Your task to perform on an android device: Go to accessibility settings Image 0: 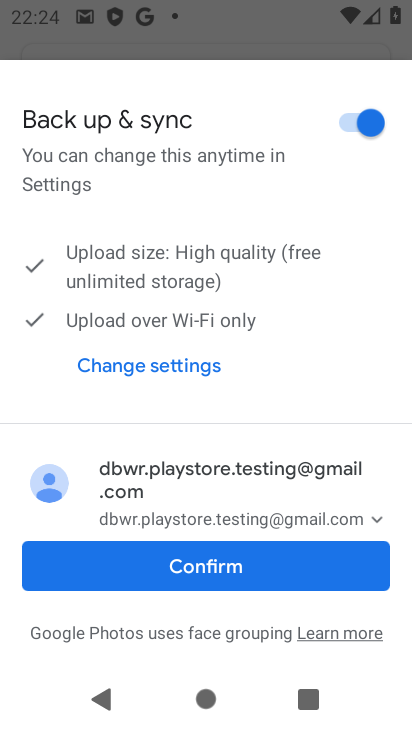
Step 0: press home button
Your task to perform on an android device: Go to accessibility settings Image 1: 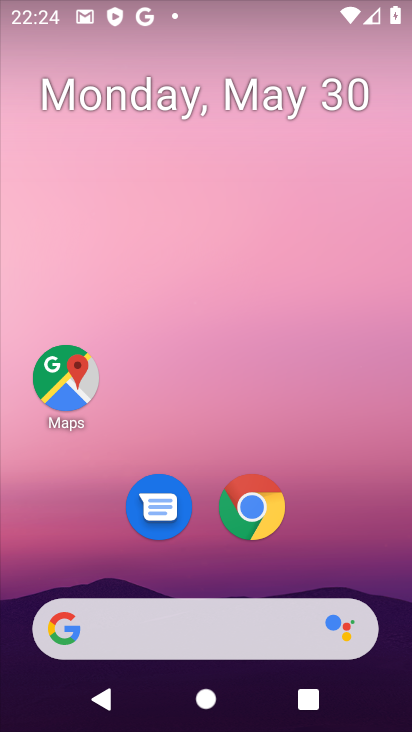
Step 1: drag from (366, 548) to (384, 125)
Your task to perform on an android device: Go to accessibility settings Image 2: 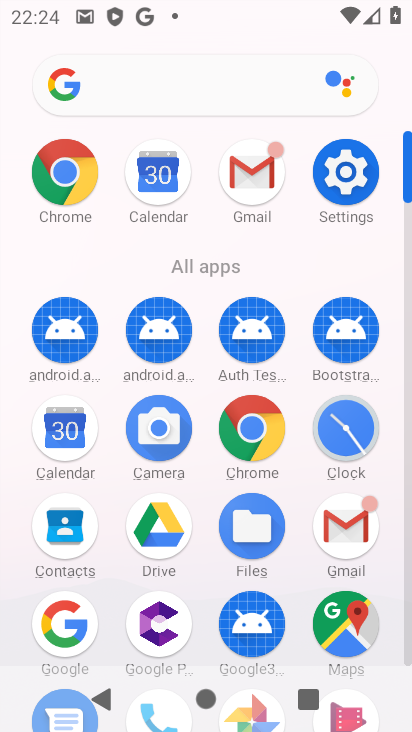
Step 2: click (343, 191)
Your task to perform on an android device: Go to accessibility settings Image 3: 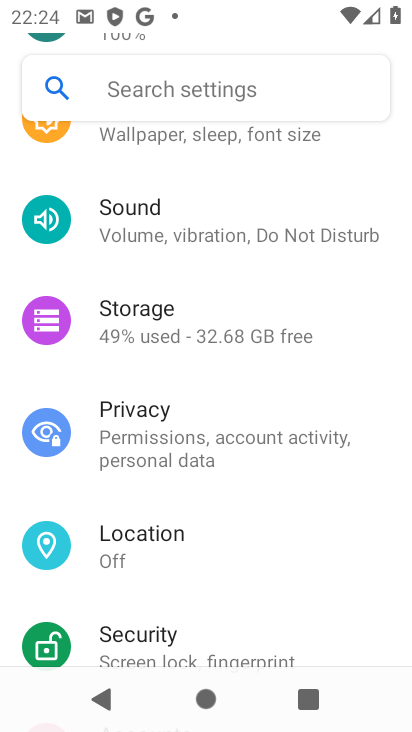
Step 3: drag from (360, 185) to (353, 308)
Your task to perform on an android device: Go to accessibility settings Image 4: 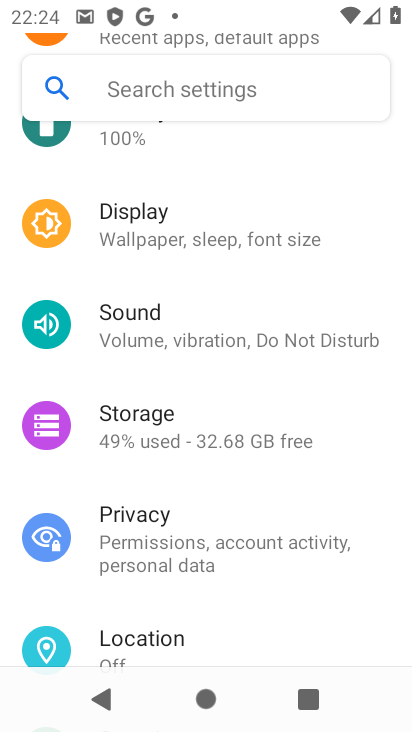
Step 4: drag from (352, 201) to (353, 320)
Your task to perform on an android device: Go to accessibility settings Image 5: 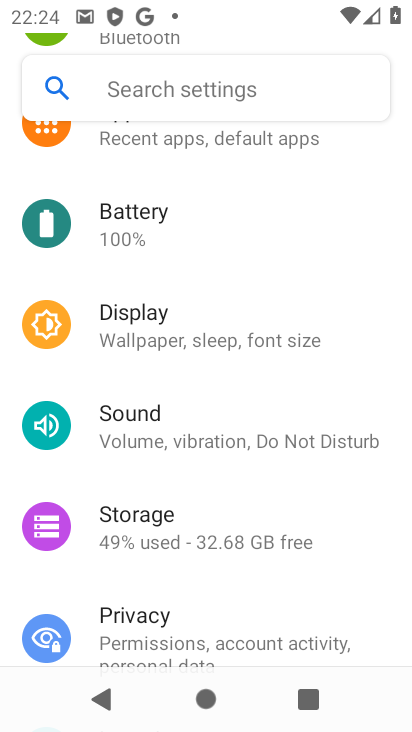
Step 5: drag from (359, 183) to (349, 369)
Your task to perform on an android device: Go to accessibility settings Image 6: 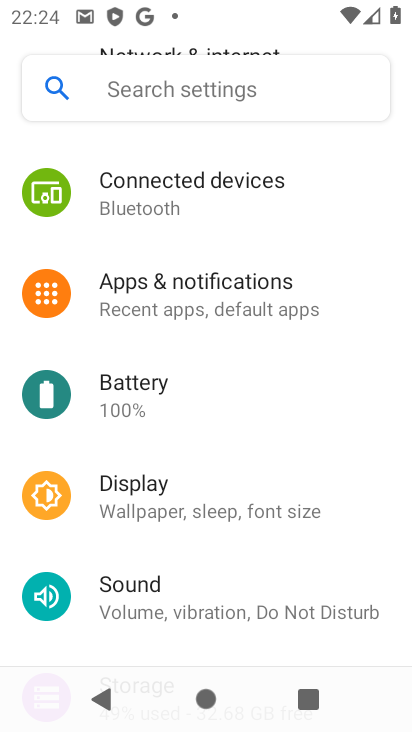
Step 6: drag from (357, 174) to (362, 364)
Your task to perform on an android device: Go to accessibility settings Image 7: 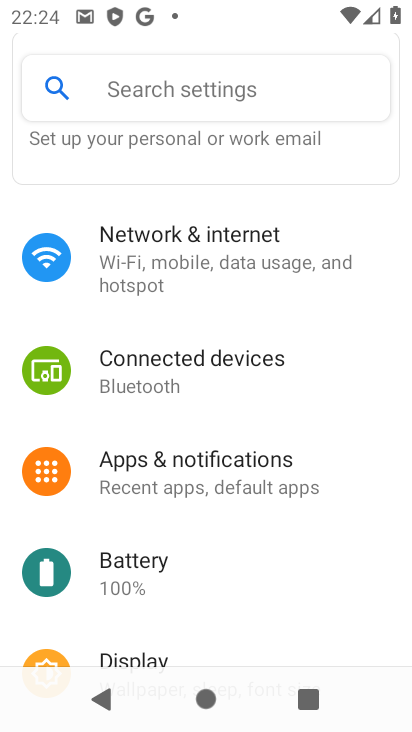
Step 7: drag from (361, 185) to (358, 400)
Your task to perform on an android device: Go to accessibility settings Image 8: 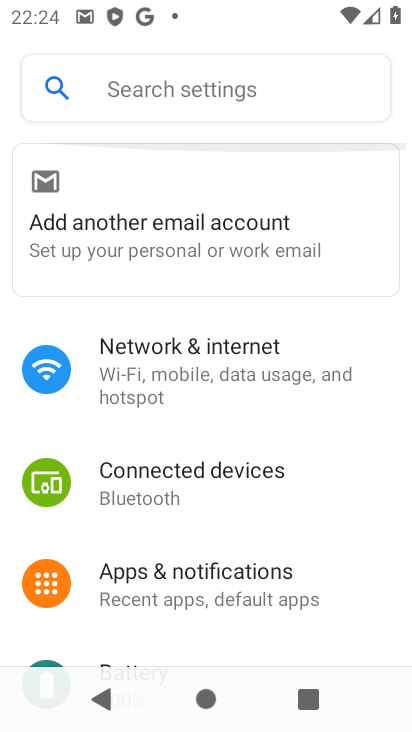
Step 8: drag from (359, 446) to (371, 302)
Your task to perform on an android device: Go to accessibility settings Image 9: 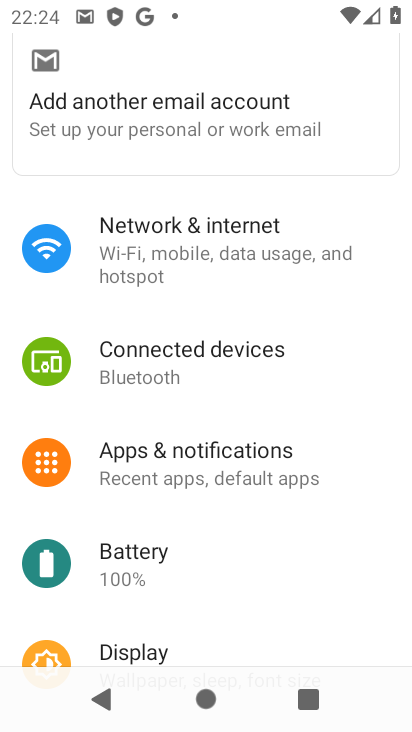
Step 9: drag from (360, 428) to (349, 295)
Your task to perform on an android device: Go to accessibility settings Image 10: 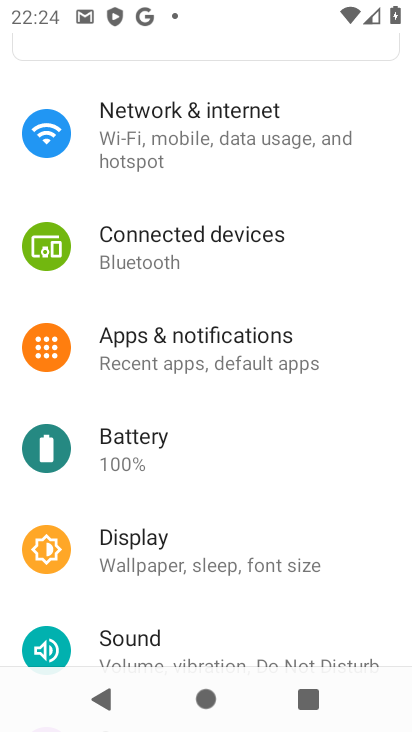
Step 10: drag from (351, 452) to (360, 318)
Your task to perform on an android device: Go to accessibility settings Image 11: 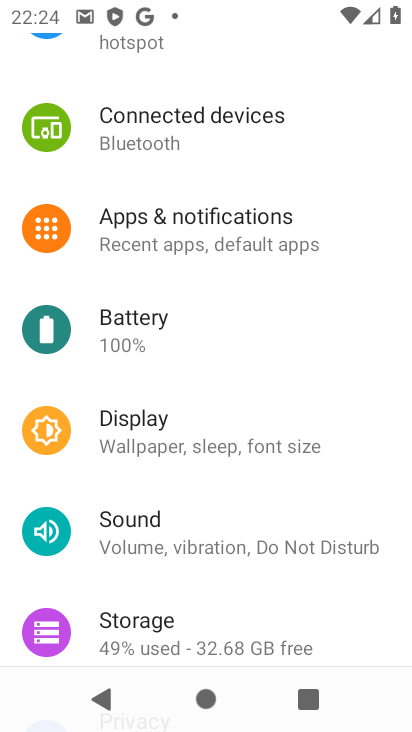
Step 11: drag from (365, 478) to (366, 324)
Your task to perform on an android device: Go to accessibility settings Image 12: 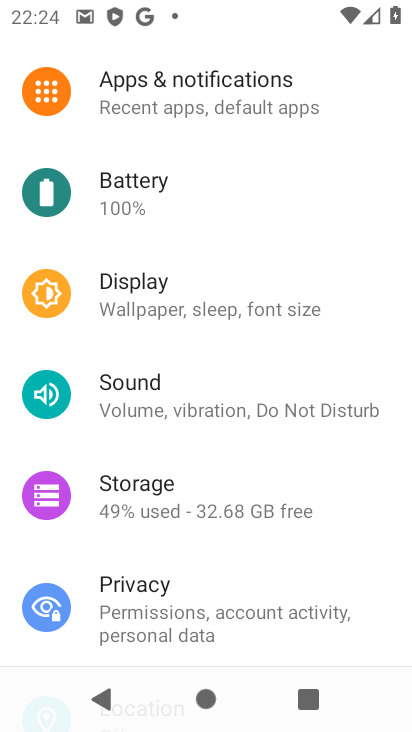
Step 12: drag from (358, 485) to (355, 326)
Your task to perform on an android device: Go to accessibility settings Image 13: 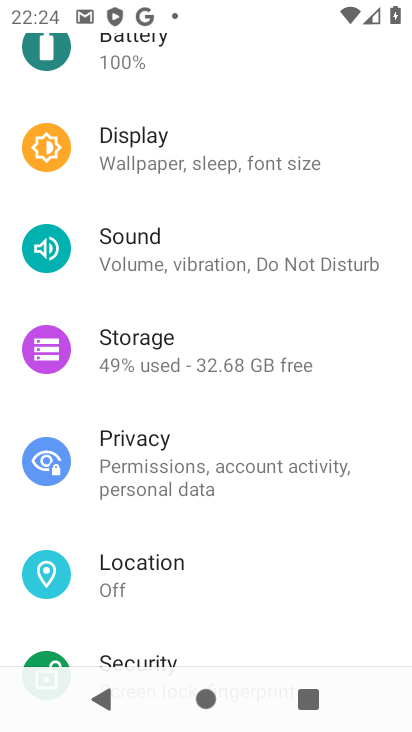
Step 13: drag from (342, 535) to (343, 297)
Your task to perform on an android device: Go to accessibility settings Image 14: 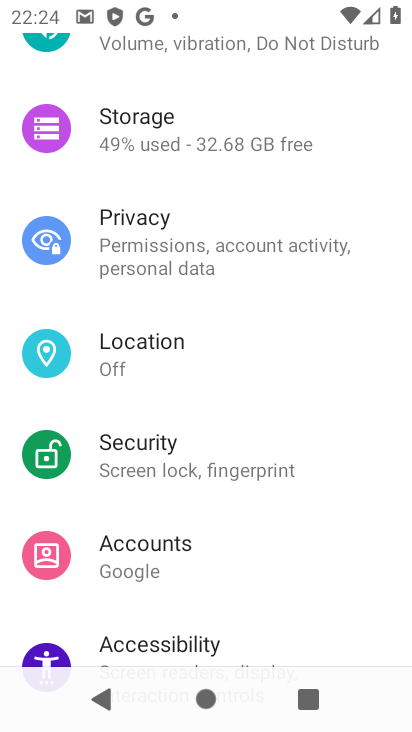
Step 14: drag from (351, 510) to (361, 307)
Your task to perform on an android device: Go to accessibility settings Image 15: 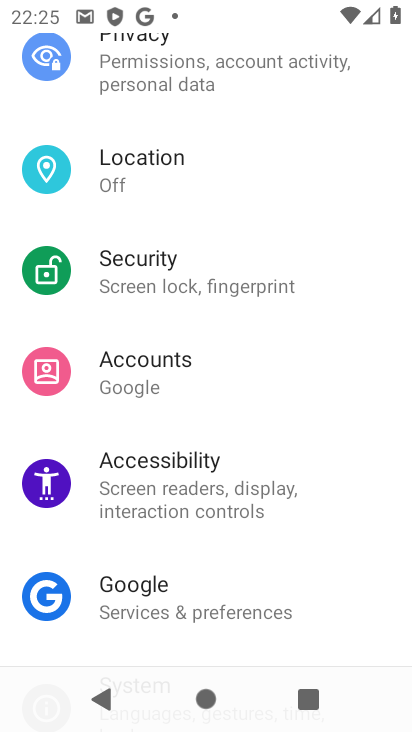
Step 15: drag from (359, 477) to (366, 320)
Your task to perform on an android device: Go to accessibility settings Image 16: 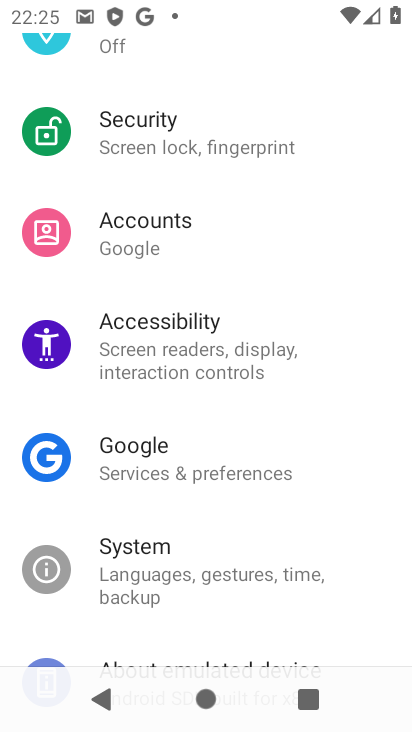
Step 16: drag from (371, 480) to (357, 311)
Your task to perform on an android device: Go to accessibility settings Image 17: 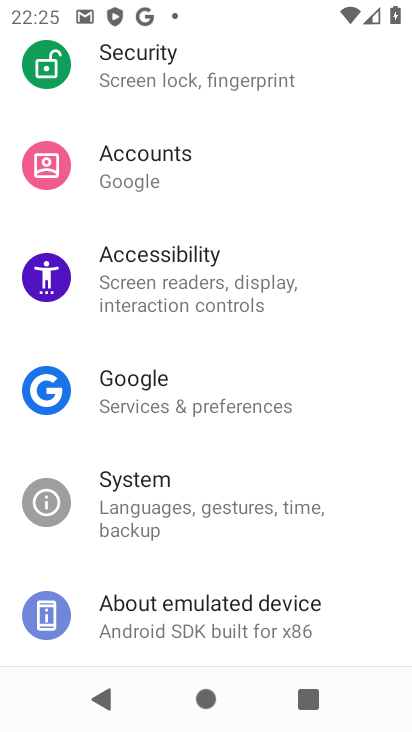
Step 17: drag from (349, 381) to (354, 231)
Your task to perform on an android device: Go to accessibility settings Image 18: 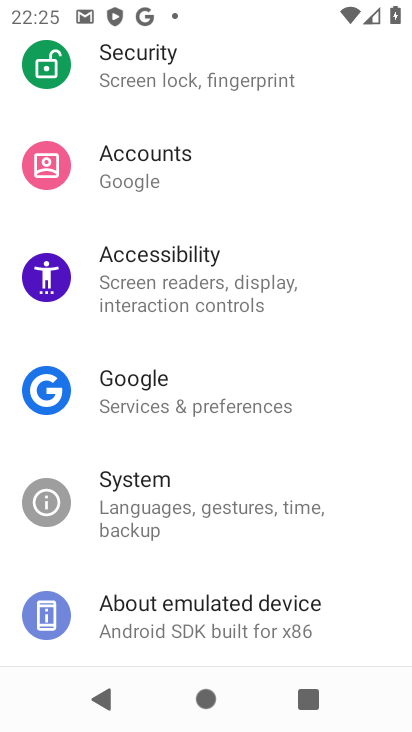
Step 18: drag from (339, 479) to (331, 255)
Your task to perform on an android device: Go to accessibility settings Image 19: 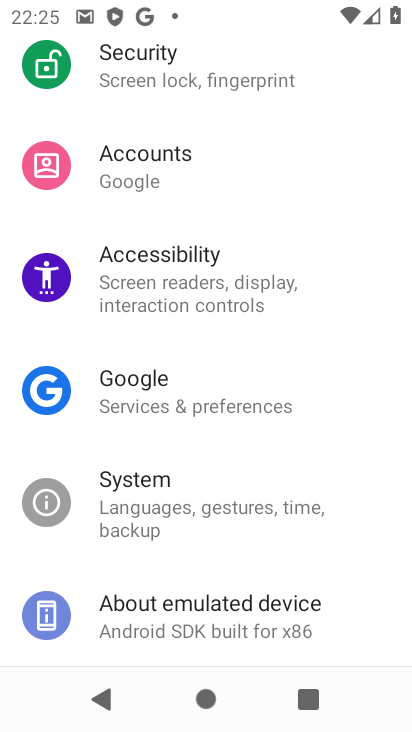
Step 19: drag from (348, 470) to (345, 307)
Your task to perform on an android device: Go to accessibility settings Image 20: 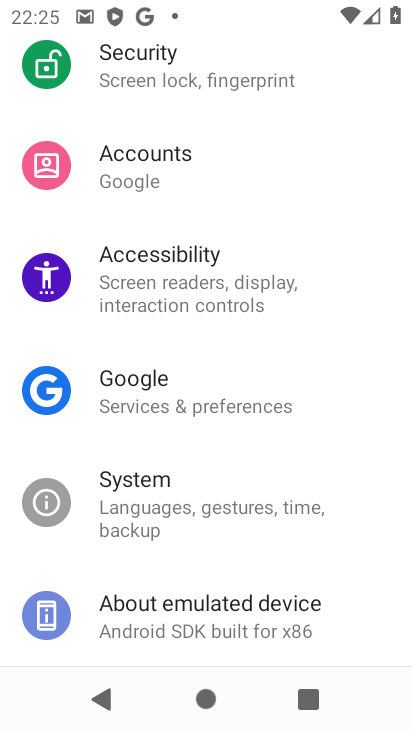
Step 20: click (245, 294)
Your task to perform on an android device: Go to accessibility settings Image 21: 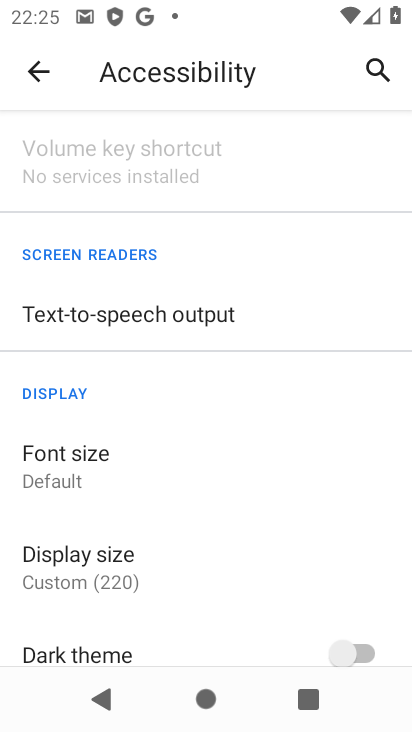
Step 21: task complete